Your task to perform on an android device: turn on priority inbox in the gmail app Image 0: 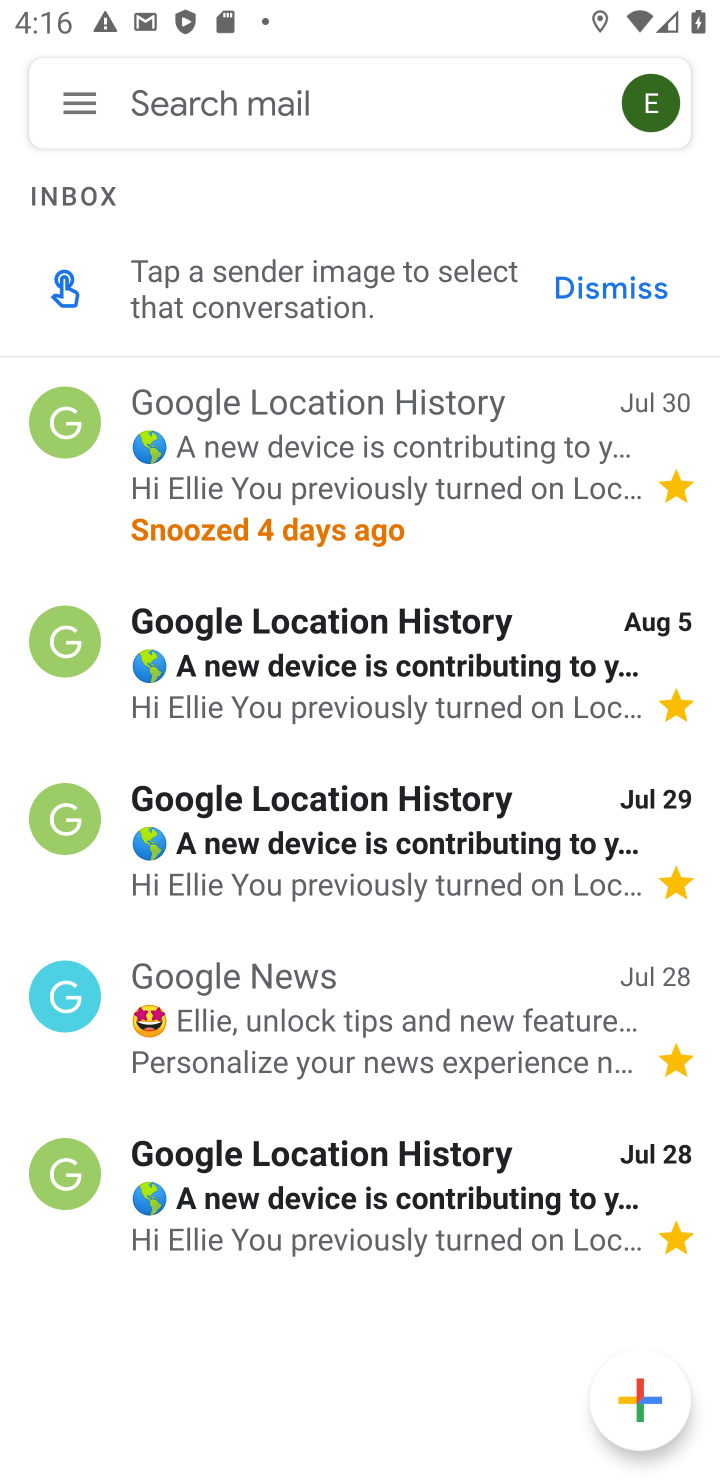
Step 0: press home button
Your task to perform on an android device: turn on priority inbox in the gmail app Image 1: 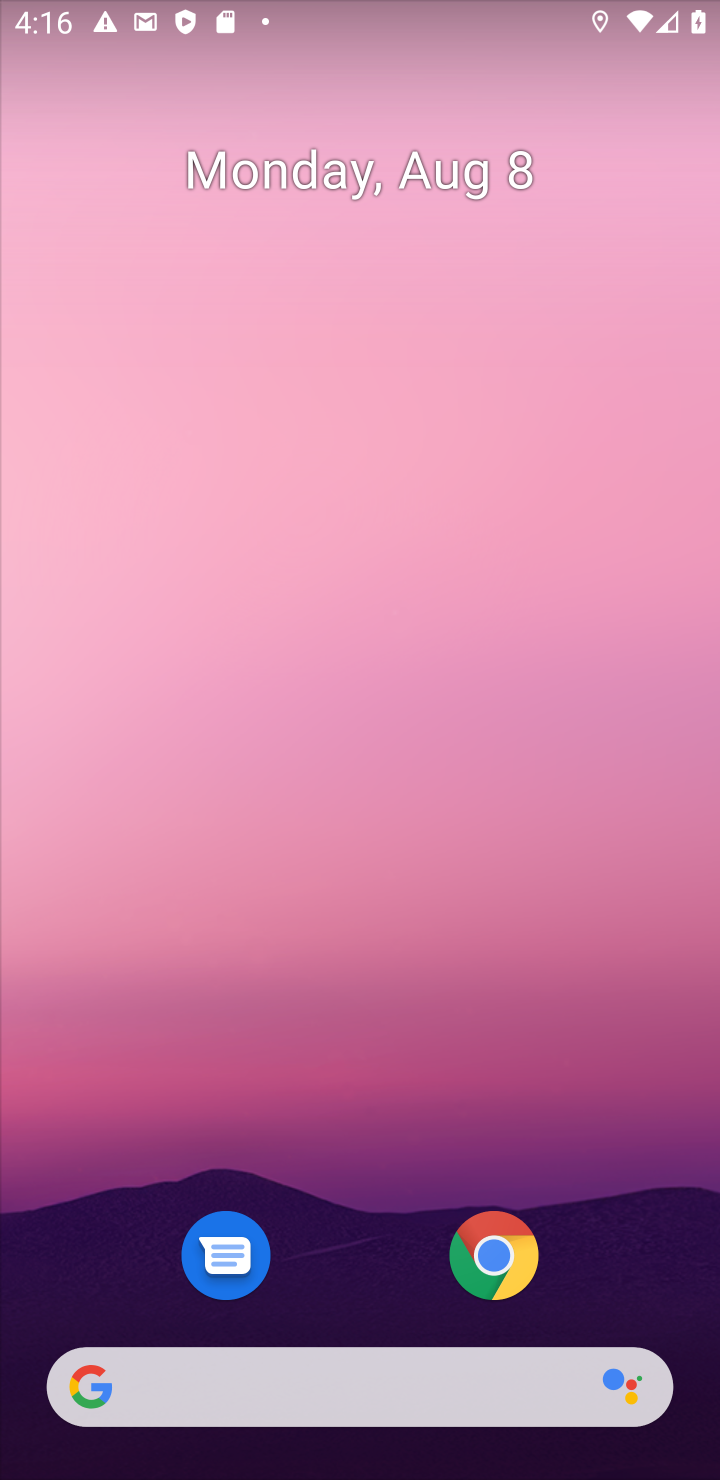
Step 1: drag from (273, 1353) to (353, 228)
Your task to perform on an android device: turn on priority inbox in the gmail app Image 2: 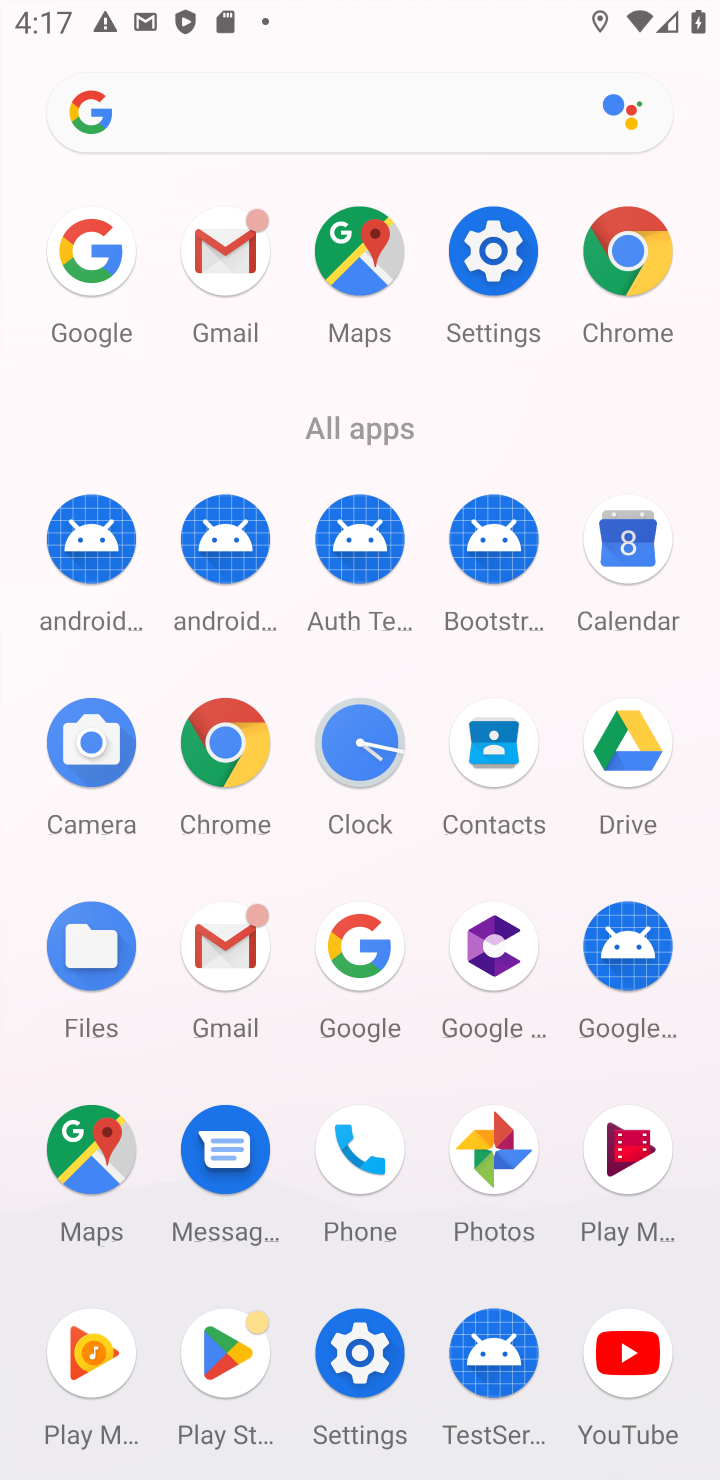
Step 2: click (222, 249)
Your task to perform on an android device: turn on priority inbox in the gmail app Image 3: 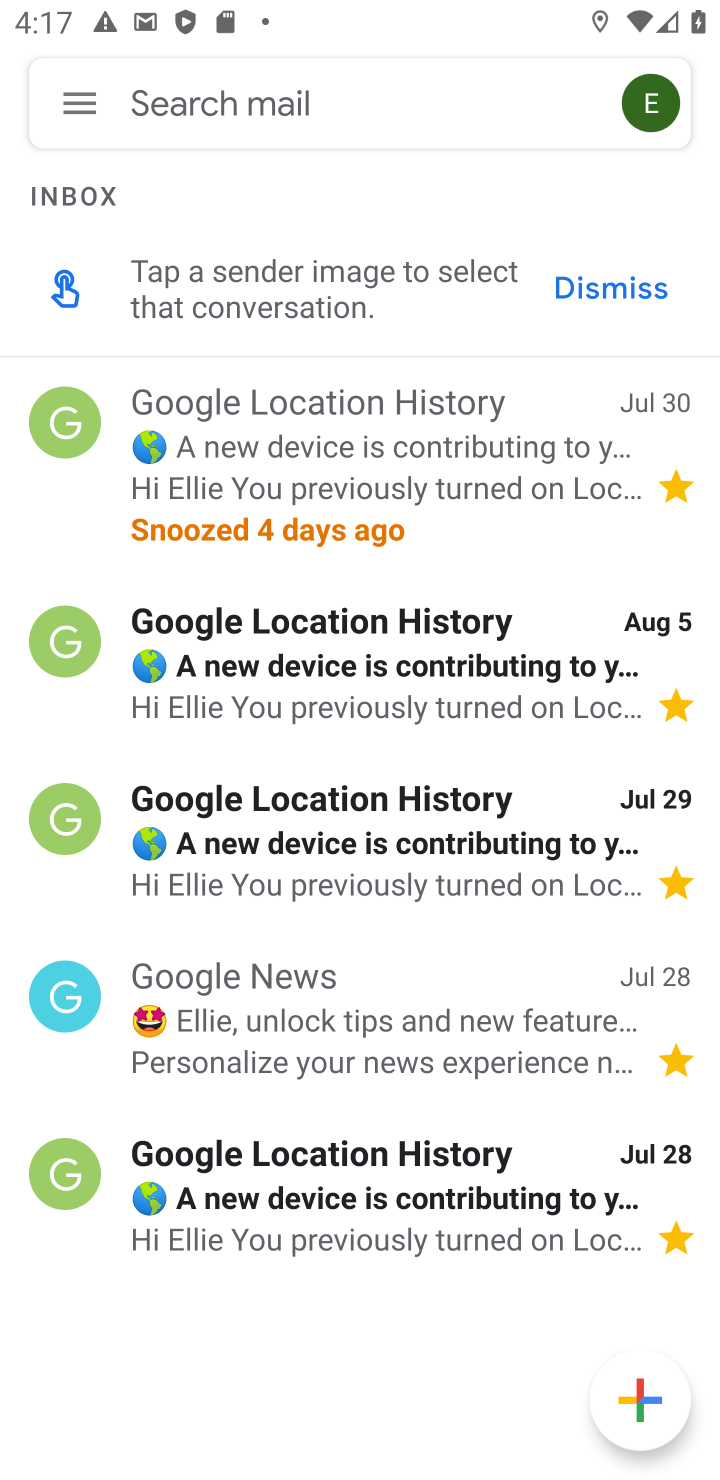
Step 3: click (79, 103)
Your task to perform on an android device: turn on priority inbox in the gmail app Image 4: 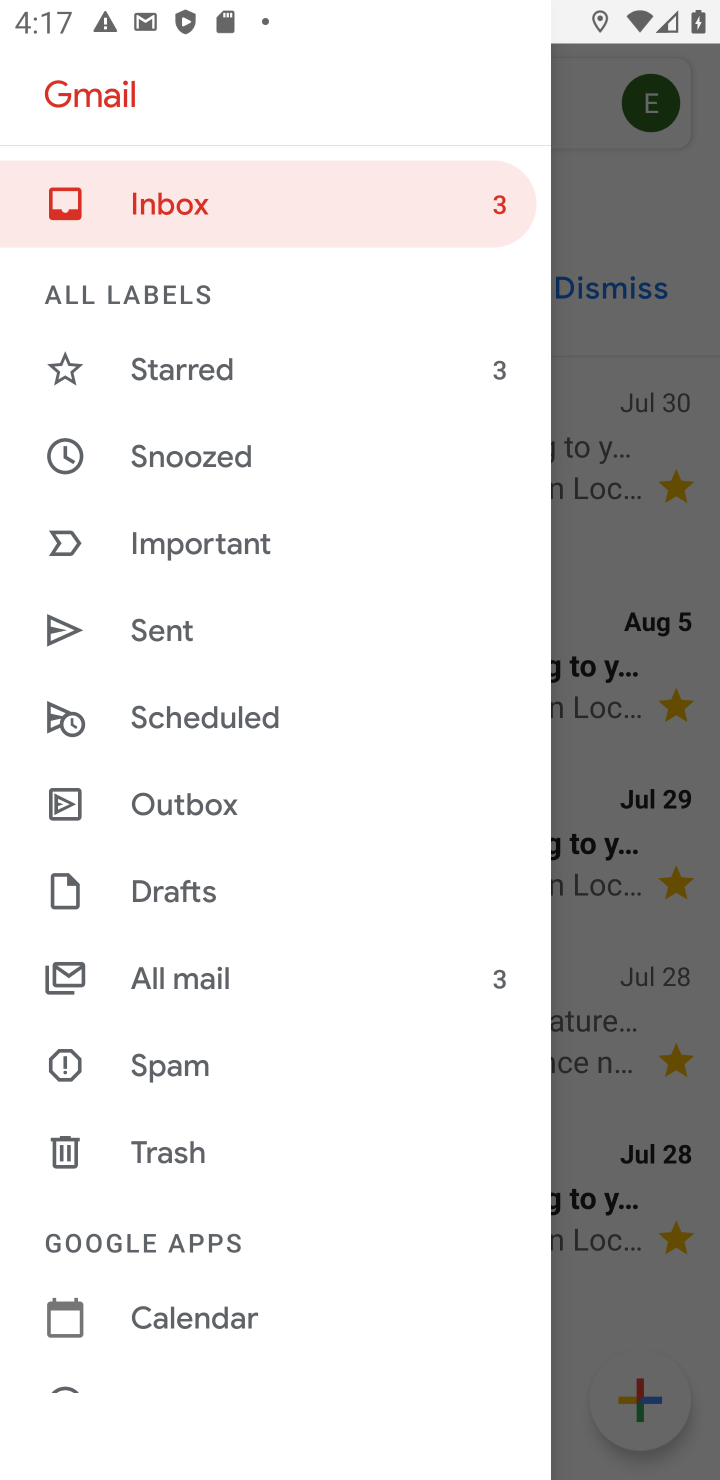
Step 4: drag from (172, 922) to (253, 744)
Your task to perform on an android device: turn on priority inbox in the gmail app Image 5: 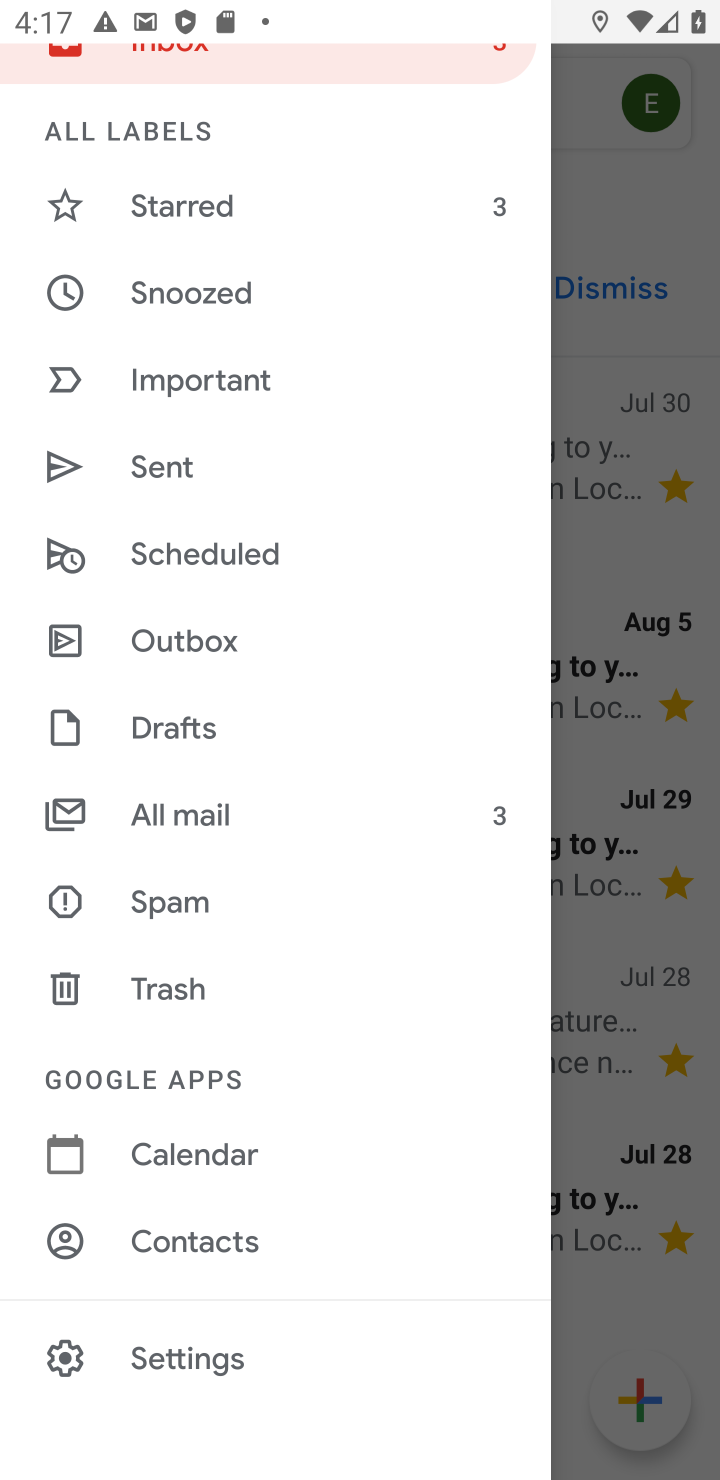
Step 5: drag from (123, 975) to (250, 818)
Your task to perform on an android device: turn on priority inbox in the gmail app Image 6: 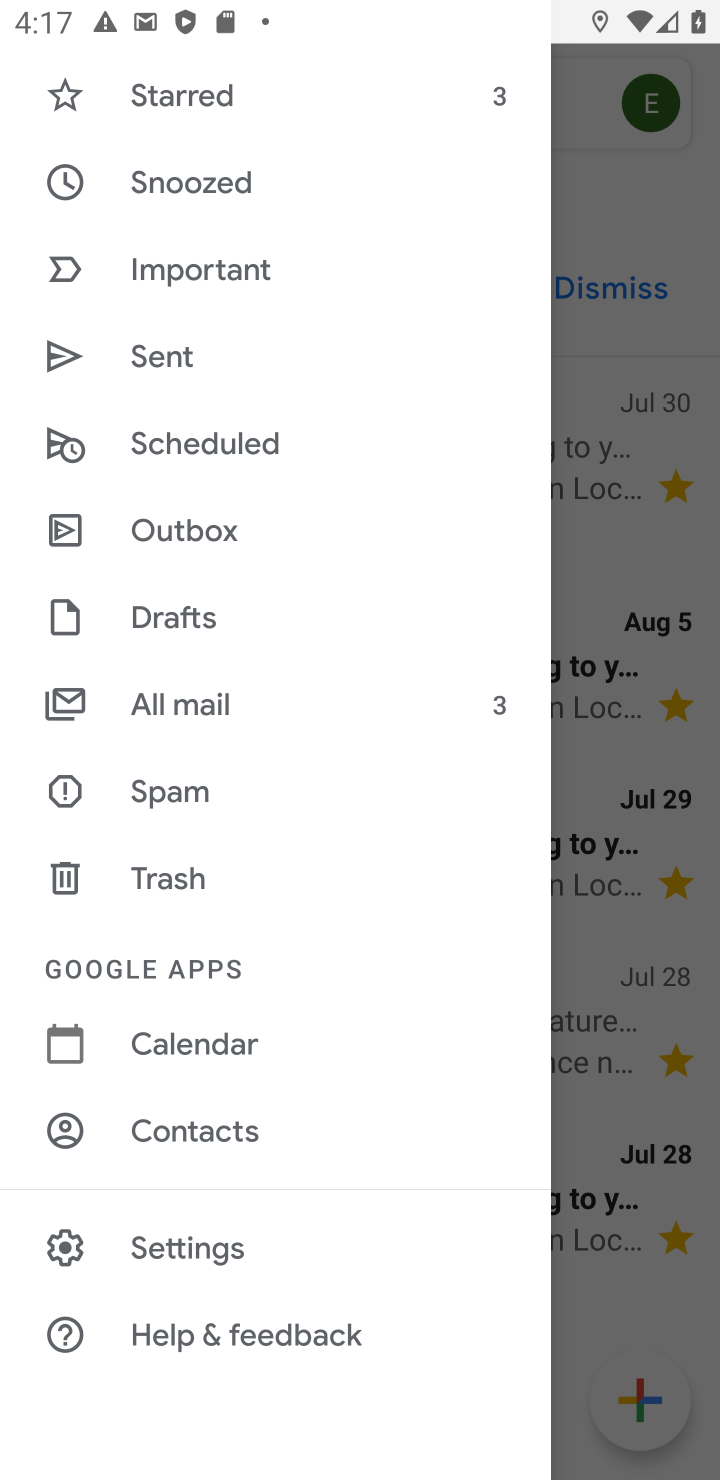
Step 6: click (197, 1248)
Your task to perform on an android device: turn on priority inbox in the gmail app Image 7: 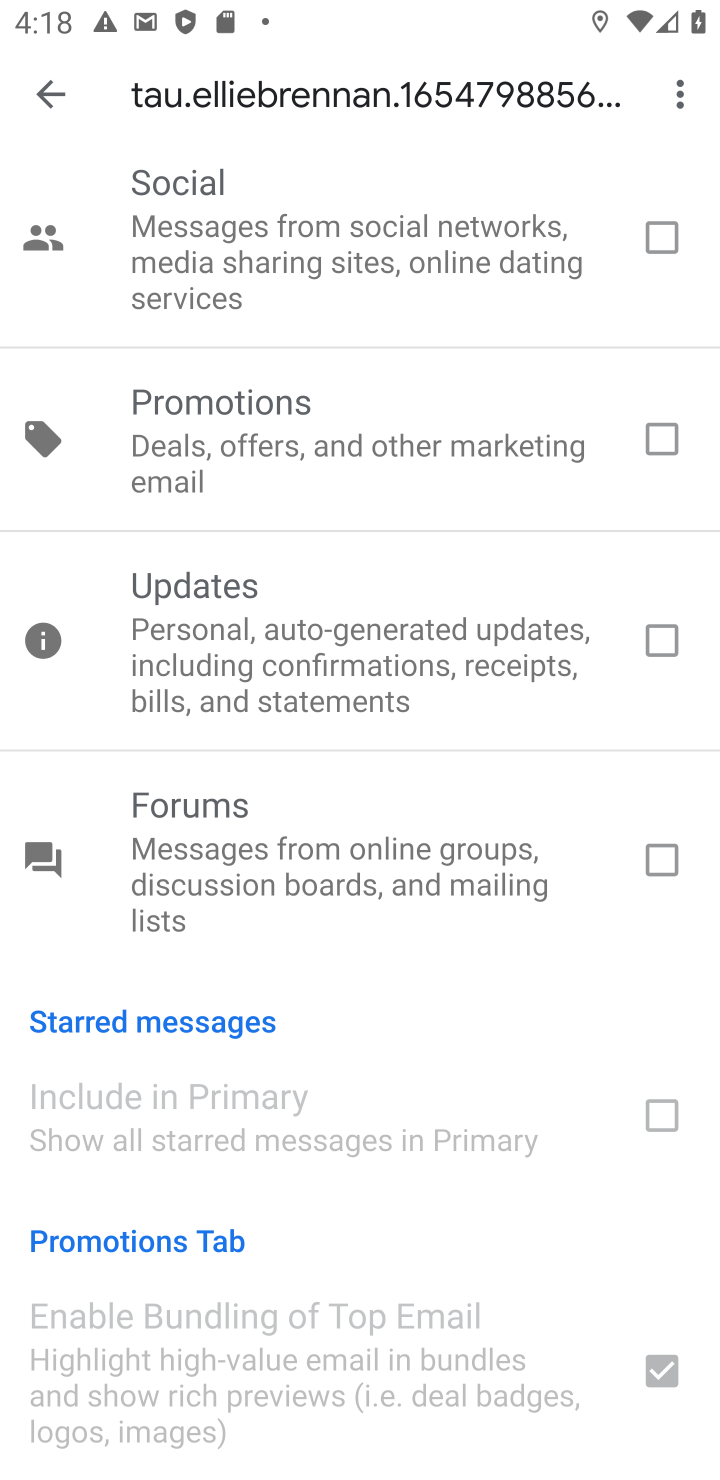
Step 7: drag from (490, 243) to (401, 766)
Your task to perform on an android device: turn on priority inbox in the gmail app Image 8: 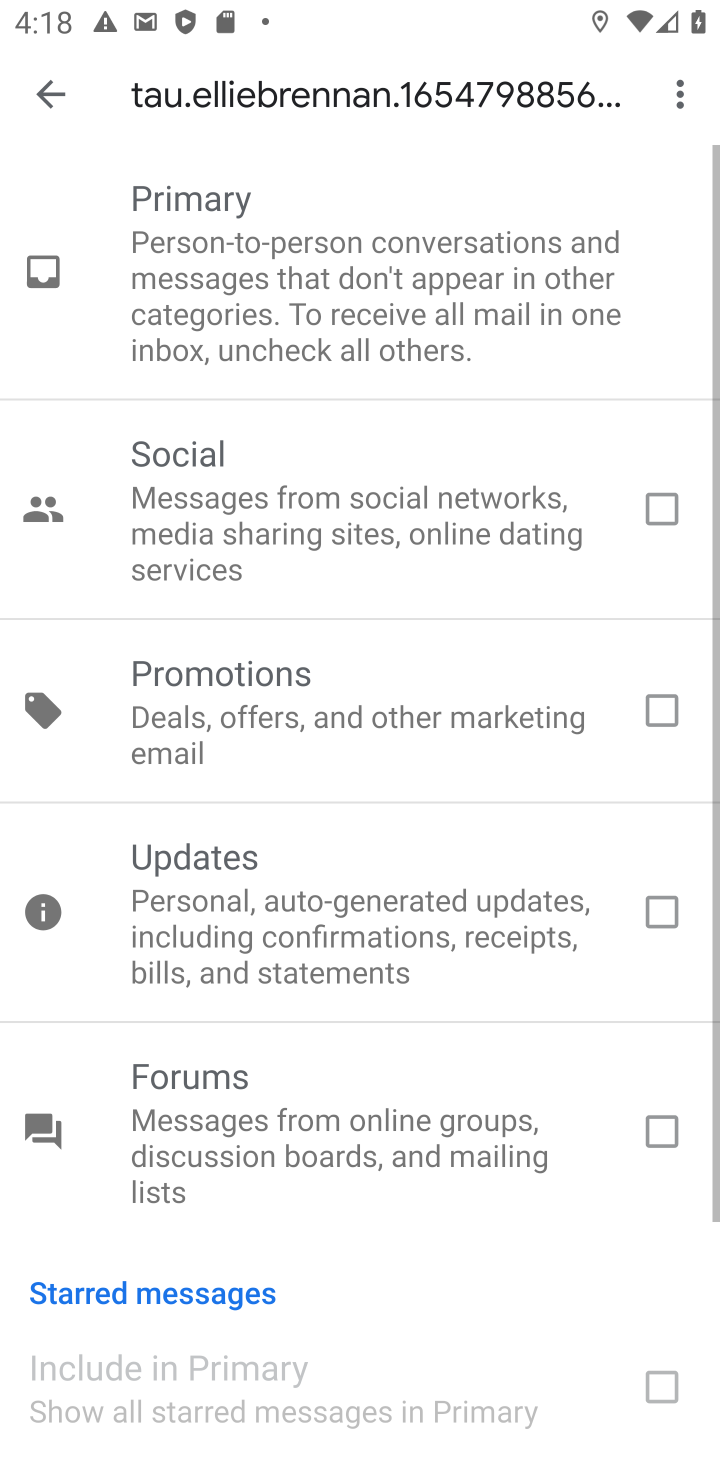
Step 8: press back button
Your task to perform on an android device: turn on priority inbox in the gmail app Image 9: 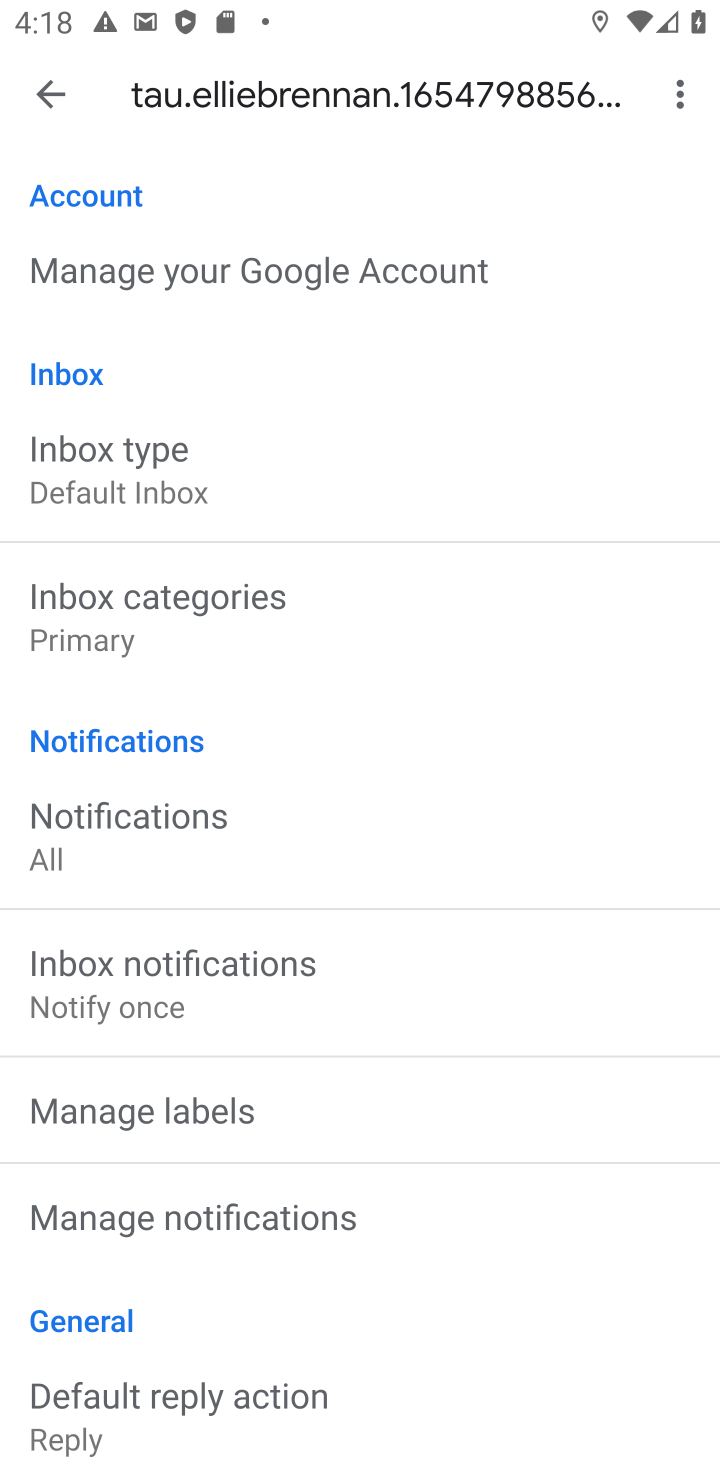
Step 9: click (163, 474)
Your task to perform on an android device: turn on priority inbox in the gmail app Image 10: 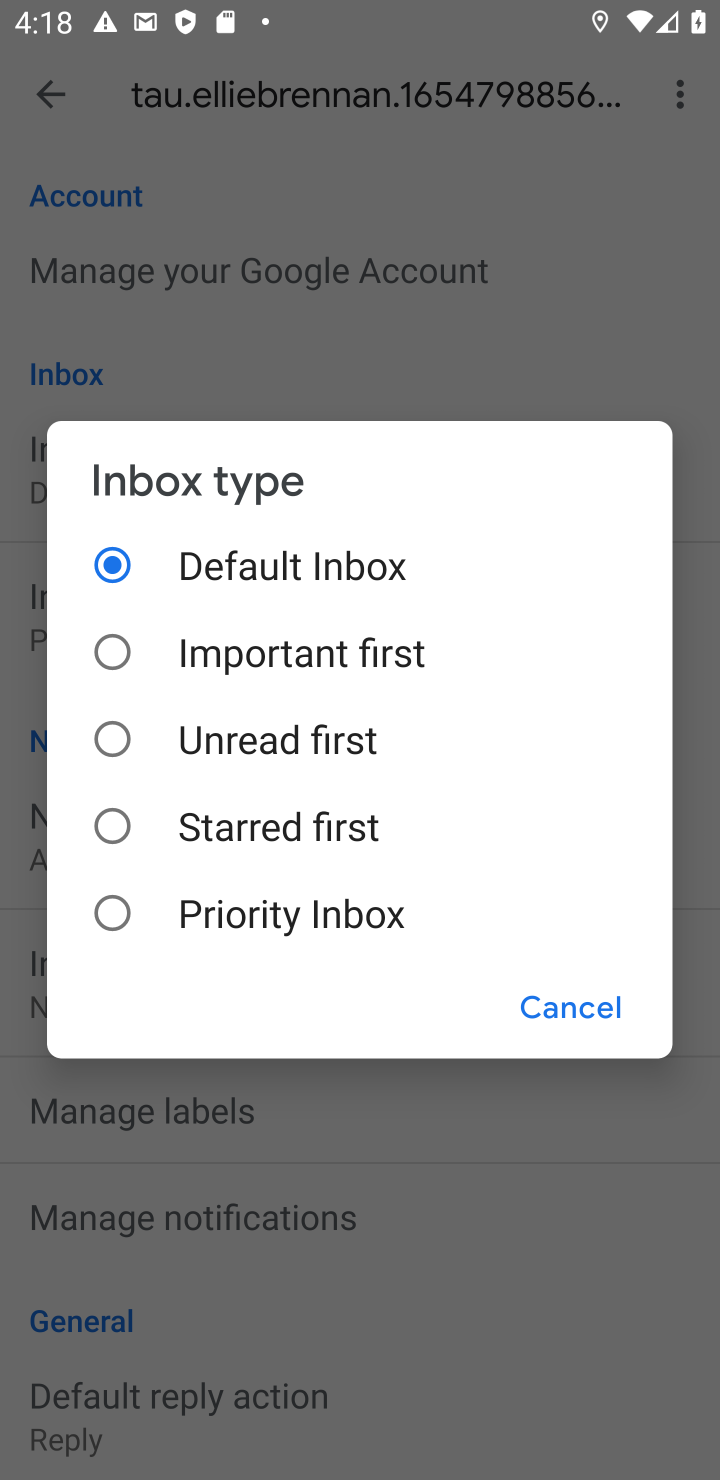
Step 10: click (118, 918)
Your task to perform on an android device: turn on priority inbox in the gmail app Image 11: 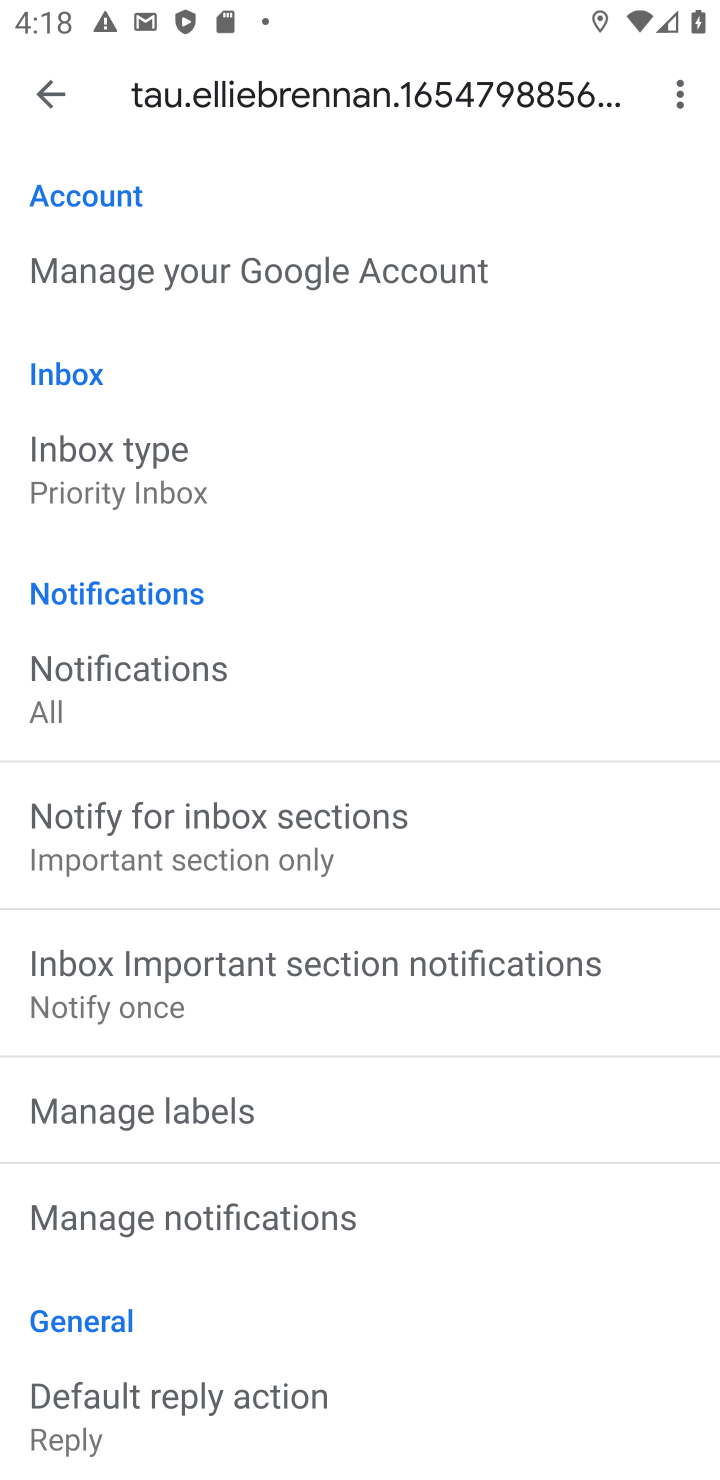
Step 11: task complete